Your task to perform on an android device: open sync settings in chrome Image 0: 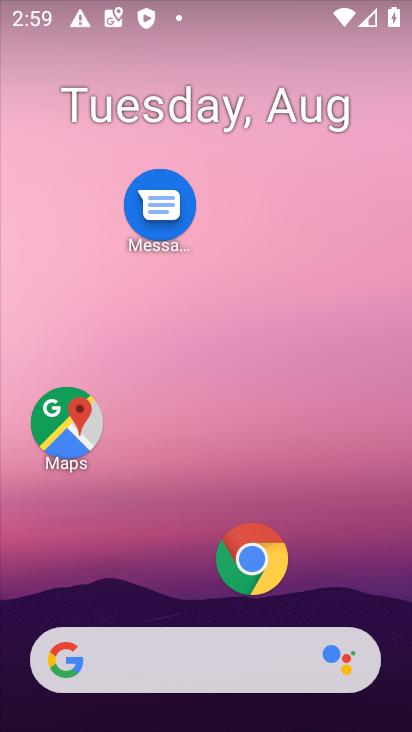
Step 0: click (250, 558)
Your task to perform on an android device: open sync settings in chrome Image 1: 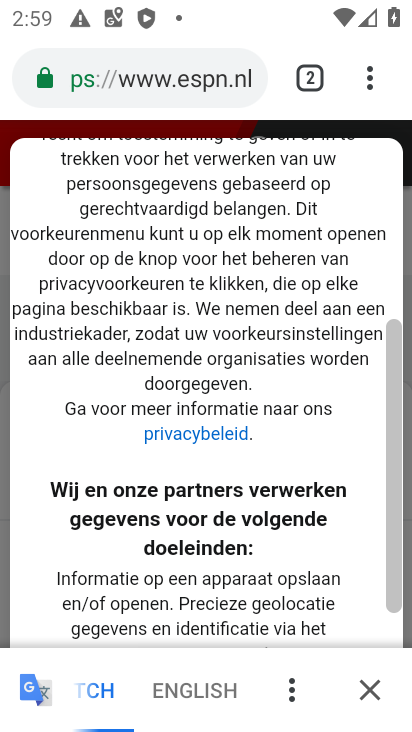
Step 1: click (373, 75)
Your task to perform on an android device: open sync settings in chrome Image 2: 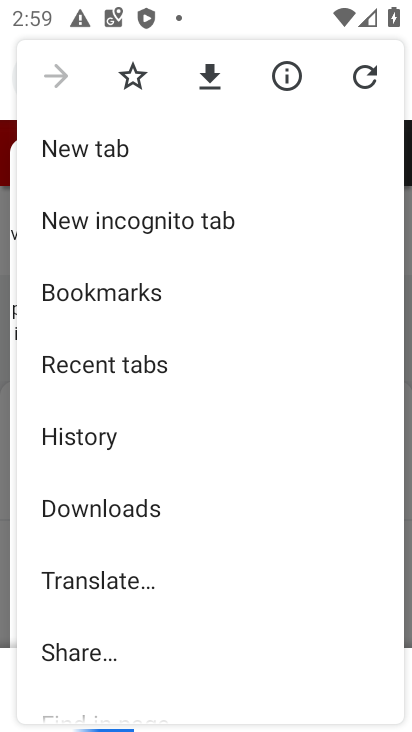
Step 2: drag from (229, 600) to (211, 231)
Your task to perform on an android device: open sync settings in chrome Image 3: 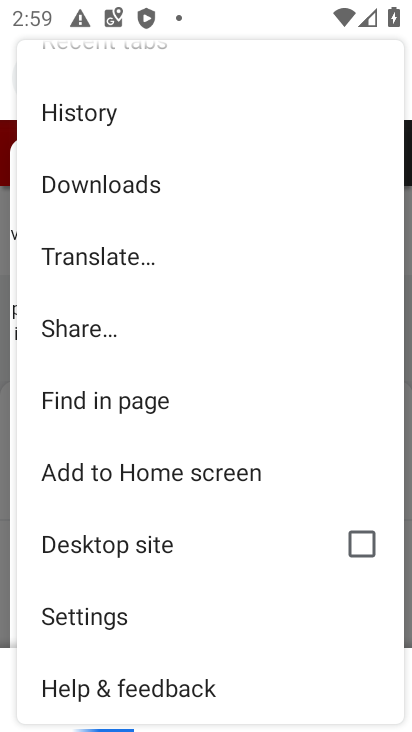
Step 3: click (84, 614)
Your task to perform on an android device: open sync settings in chrome Image 4: 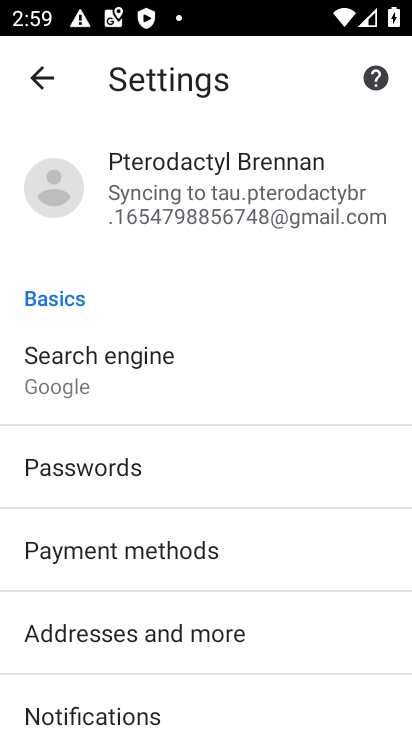
Step 4: click (176, 164)
Your task to perform on an android device: open sync settings in chrome Image 5: 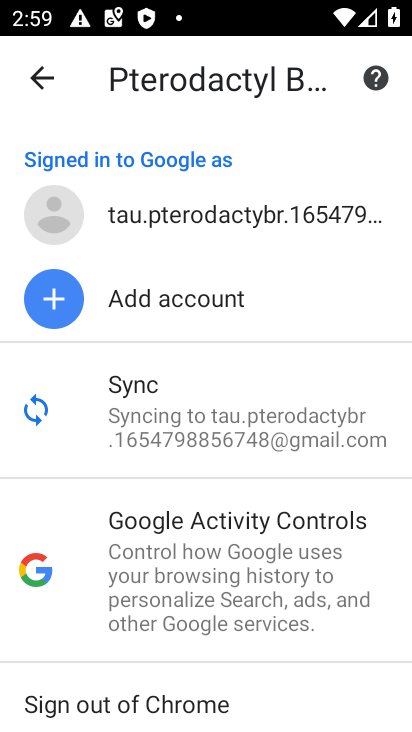
Step 5: click (150, 382)
Your task to perform on an android device: open sync settings in chrome Image 6: 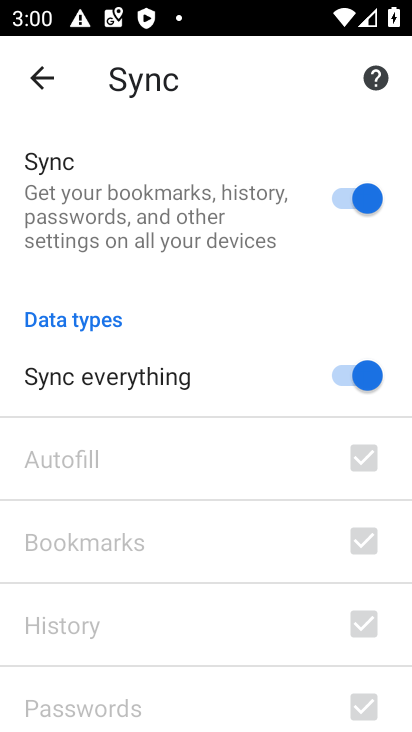
Step 6: task complete